Your task to perform on an android device: turn on priority inbox in the gmail app Image 0: 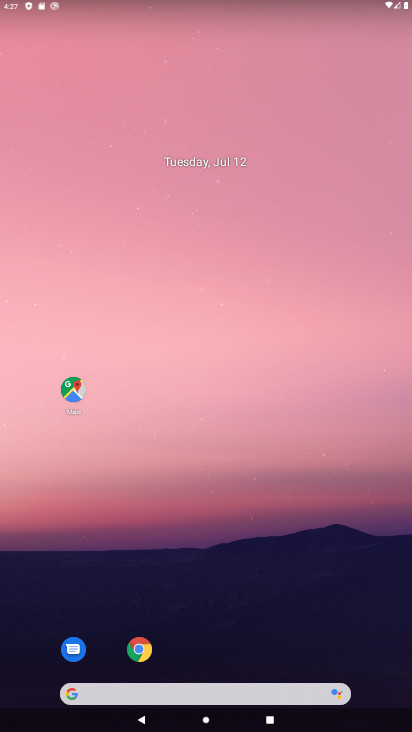
Step 0: drag from (200, 694) to (263, 249)
Your task to perform on an android device: turn on priority inbox in the gmail app Image 1: 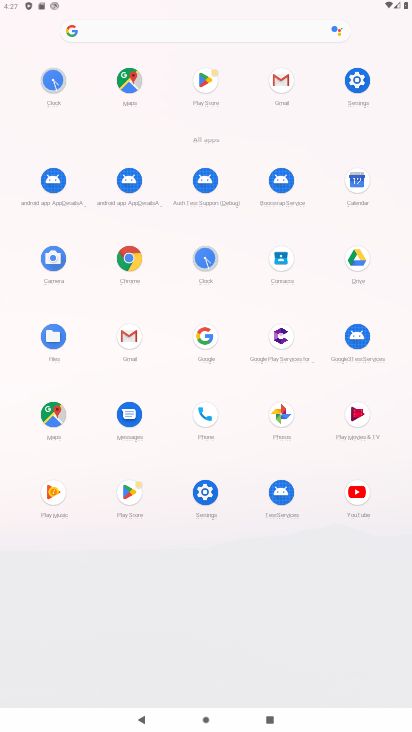
Step 1: click (281, 80)
Your task to perform on an android device: turn on priority inbox in the gmail app Image 2: 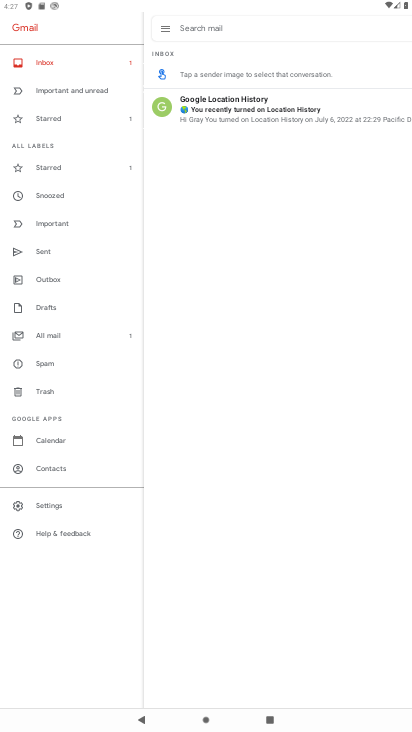
Step 2: click (42, 508)
Your task to perform on an android device: turn on priority inbox in the gmail app Image 3: 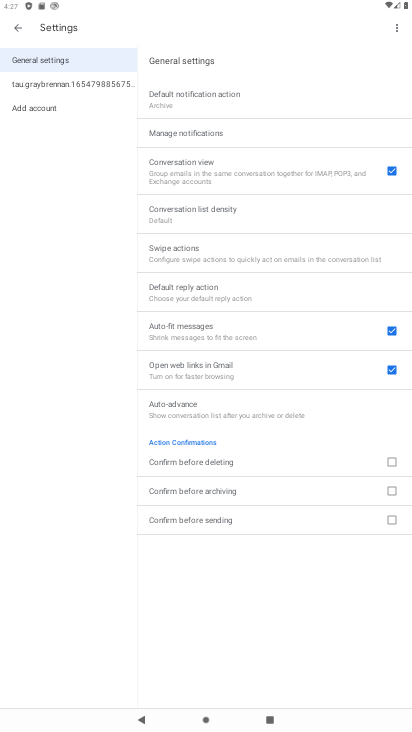
Step 3: click (71, 90)
Your task to perform on an android device: turn on priority inbox in the gmail app Image 4: 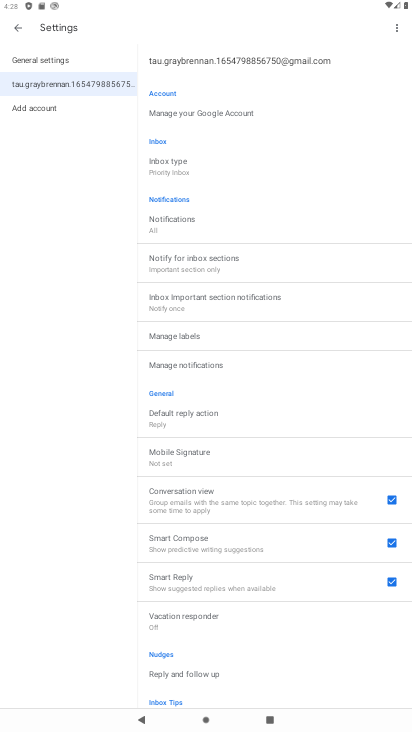
Step 4: click (161, 177)
Your task to perform on an android device: turn on priority inbox in the gmail app Image 5: 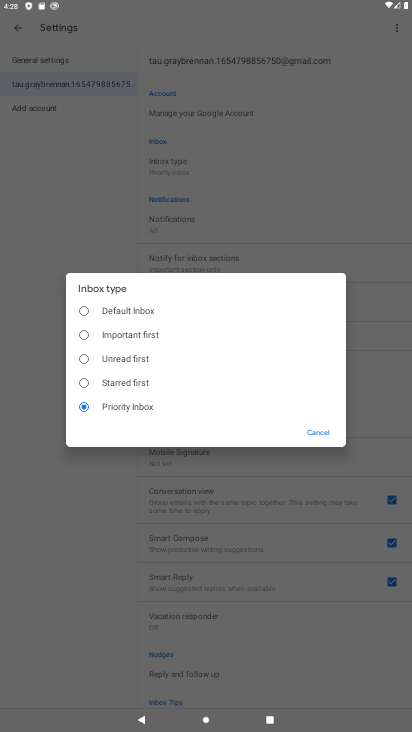
Step 5: click (83, 409)
Your task to perform on an android device: turn on priority inbox in the gmail app Image 6: 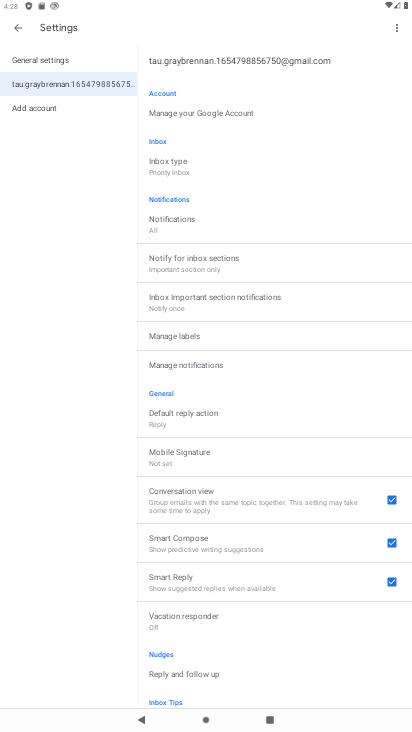
Step 6: task complete